Your task to perform on an android device: Show me the alarms in the clock app Image 0: 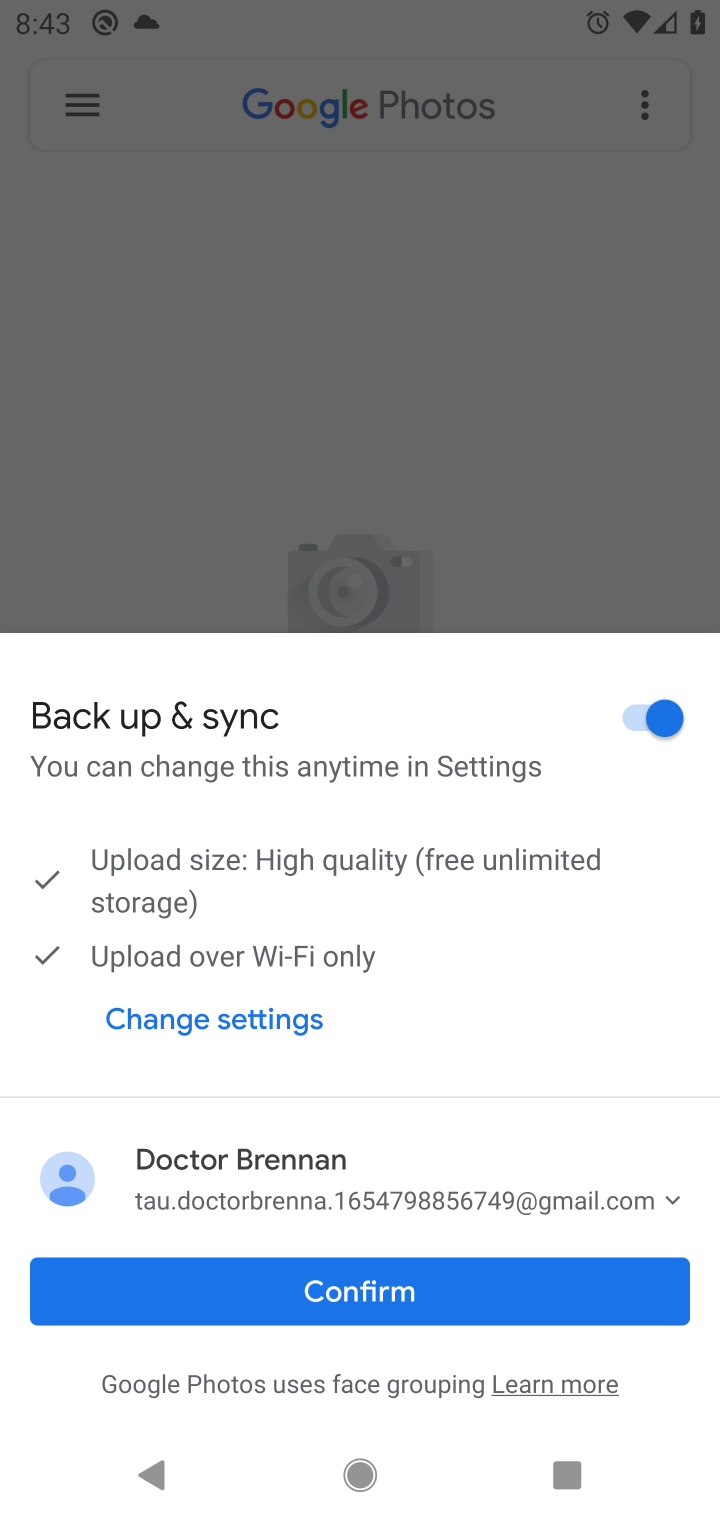
Step 0: press home button
Your task to perform on an android device: Show me the alarms in the clock app Image 1: 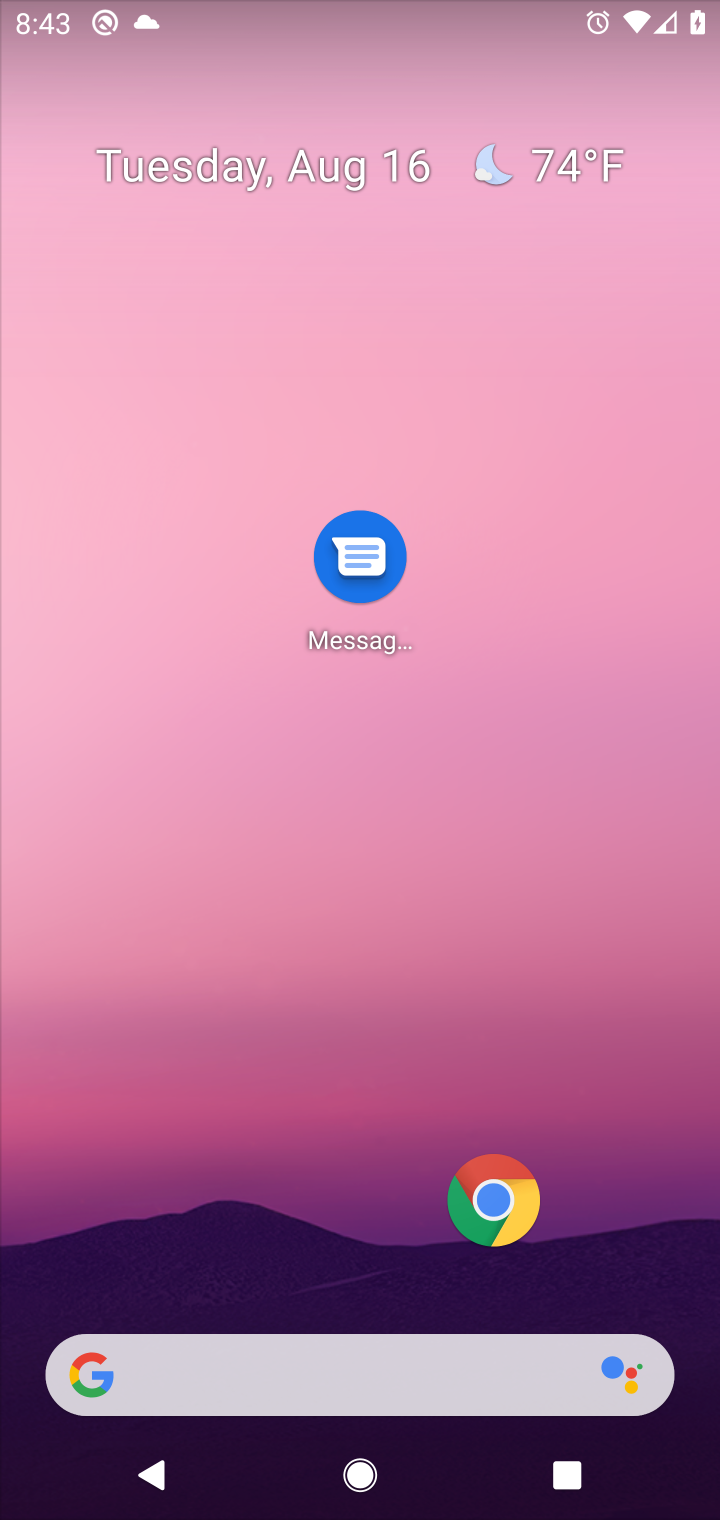
Step 1: click (315, 592)
Your task to perform on an android device: Show me the alarms in the clock app Image 2: 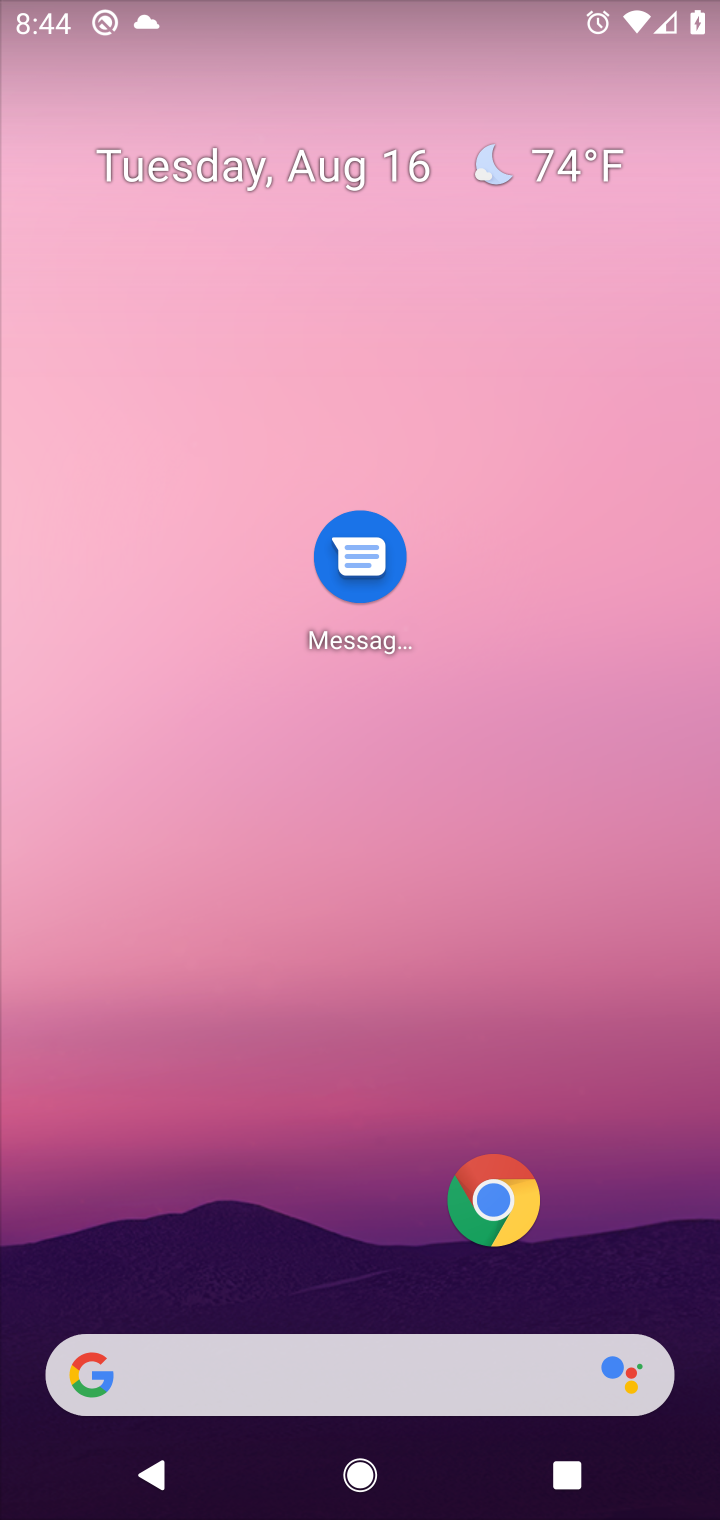
Step 2: drag from (83, 1465) to (415, 397)
Your task to perform on an android device: Show me the alarms in the clock app Image 3: 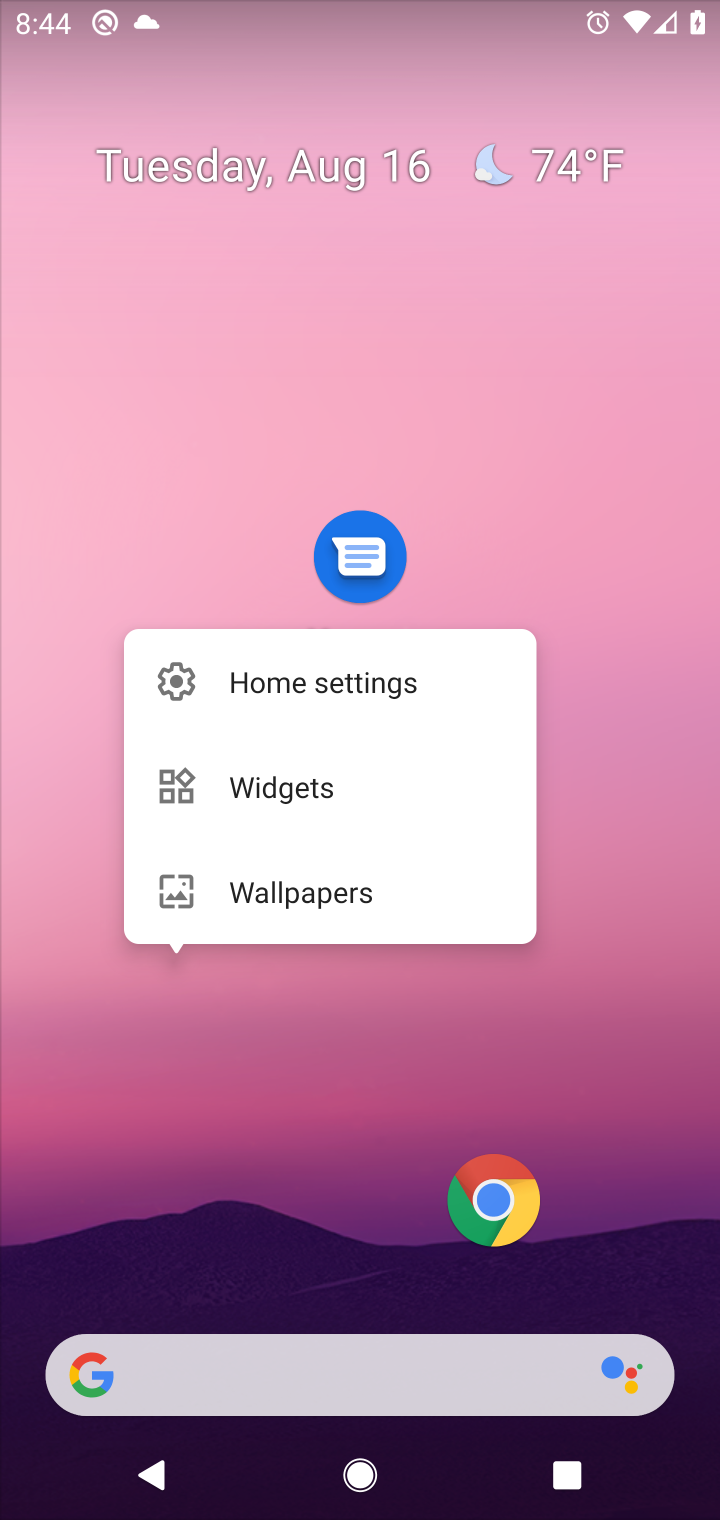
Step 3: drag from (26, 1490) to (190, 442)
Your task to perform on an android device: Show me the alarms in the clock app Image 4: 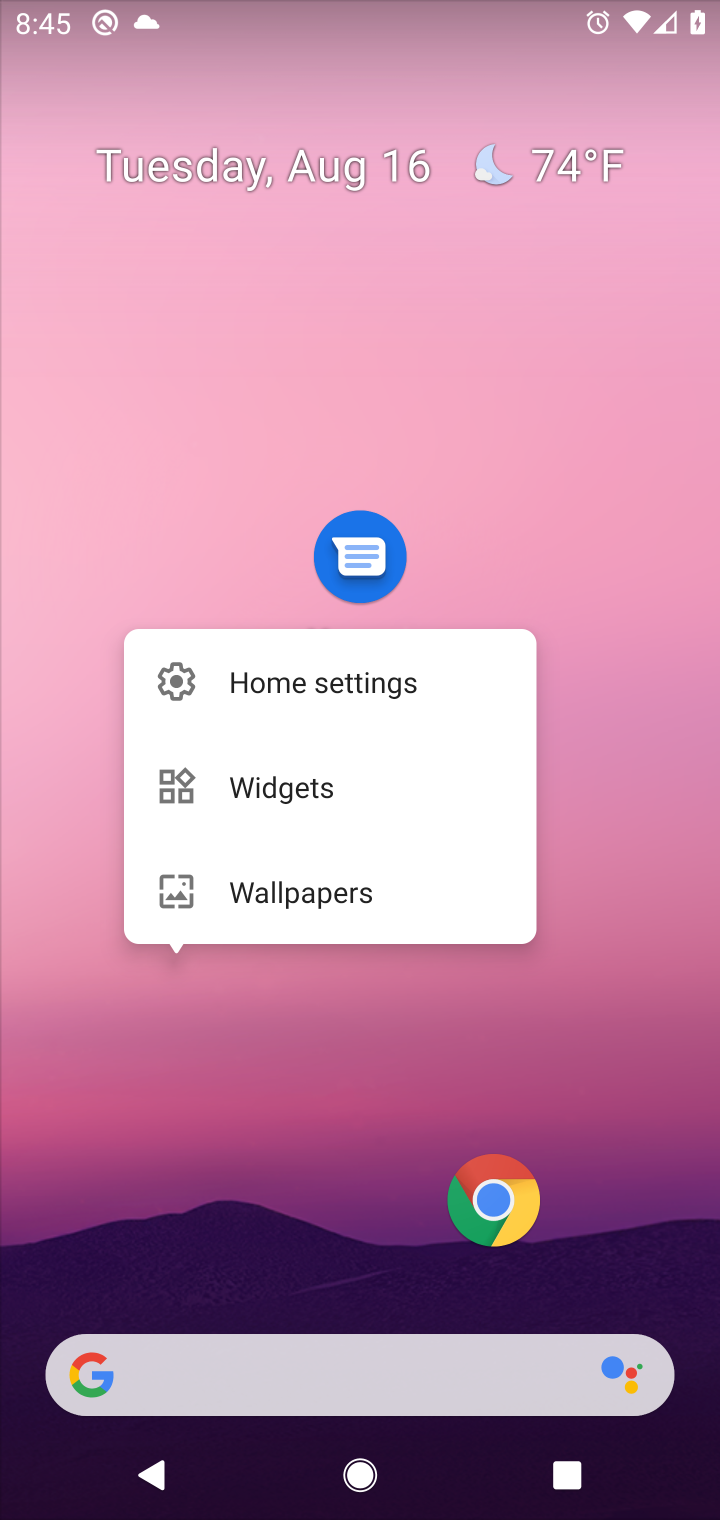
Step 4: click (51, 1472)
Your task to perform on an android device: Show me the alarms in the clock app Image 5: 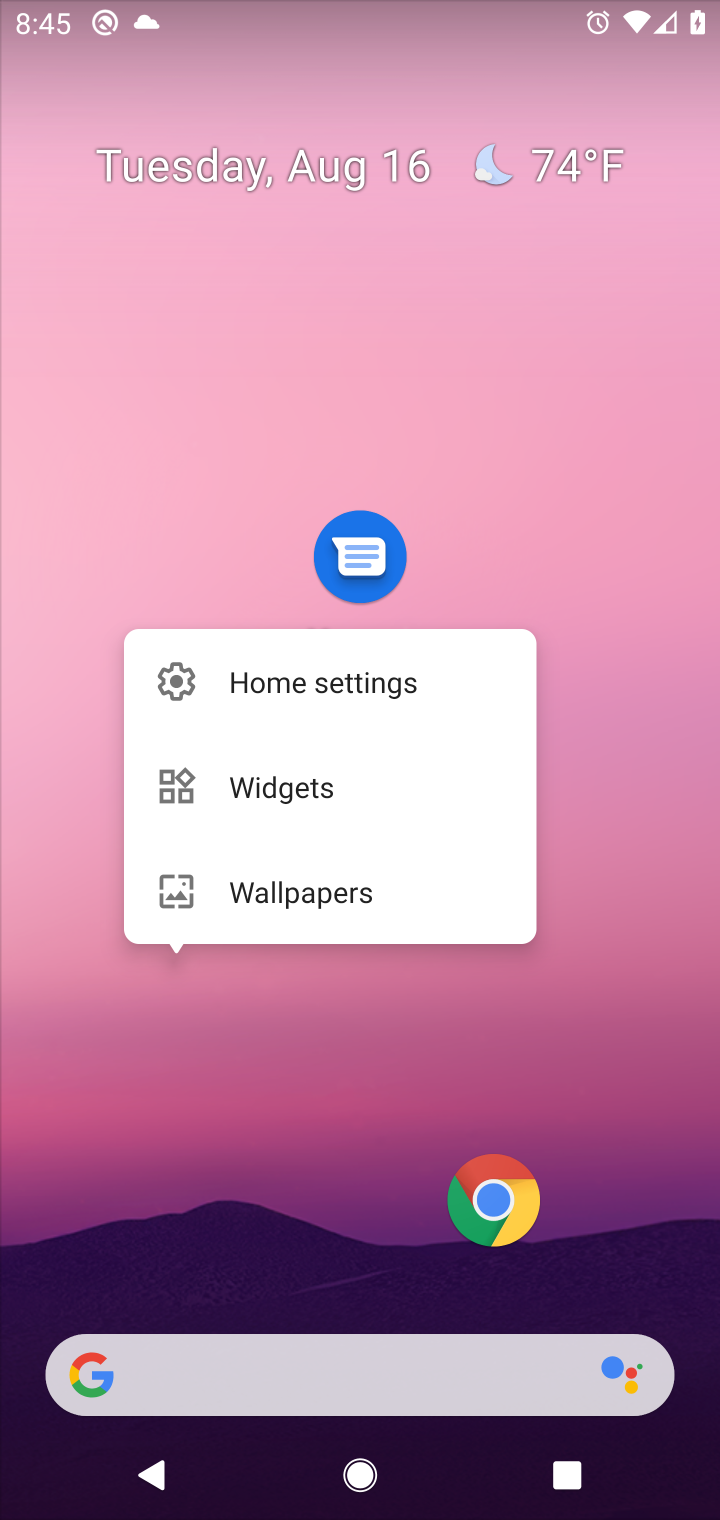
Step 5: drag from (113, 1275) to (155, 254)
Your task to perform on an android device: Show me the alarms in the clock app Image 6: 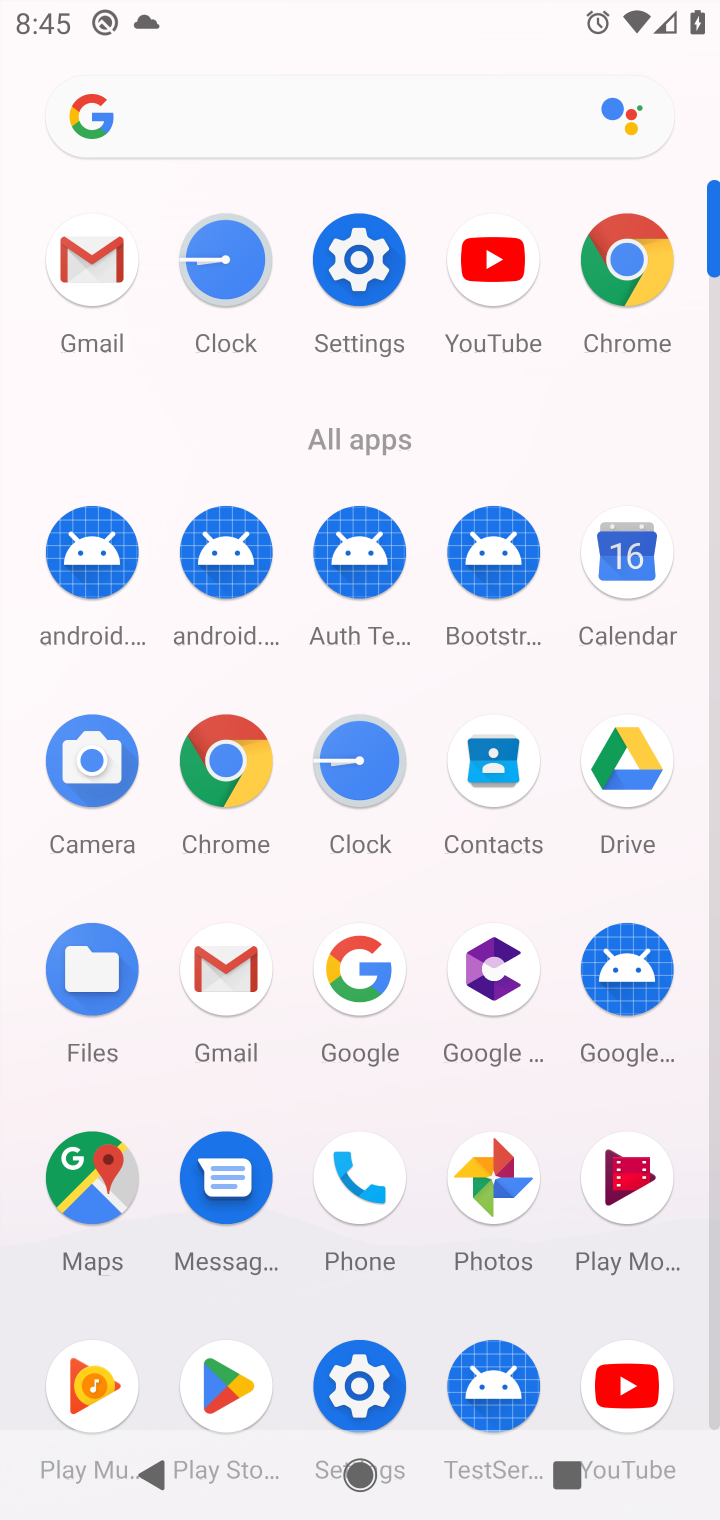
Step 6: click (334, 755)
Your task to perform on an android device: Show me the alarms in the clock app Image 7: 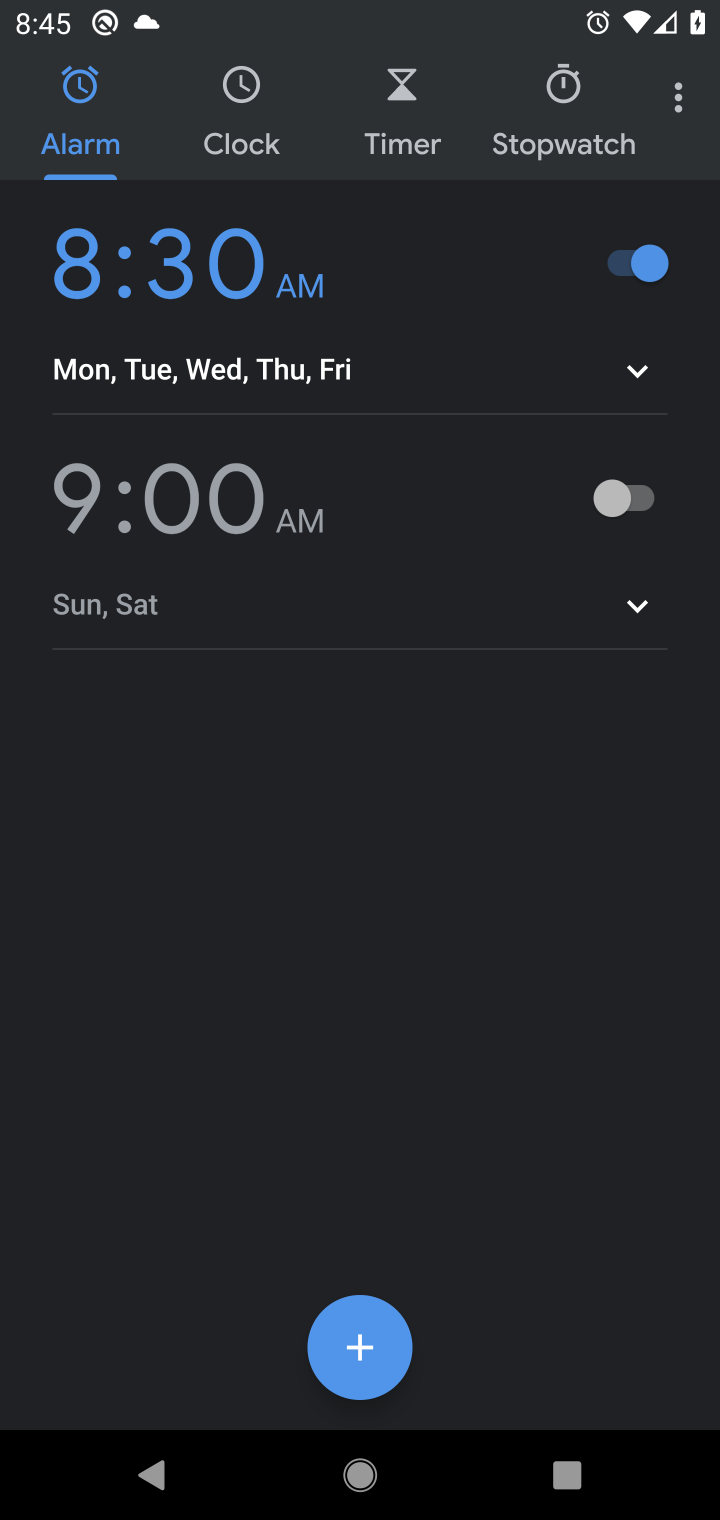
Step 7: task complete